Your task to perform on an android device: What's the weather going to be this weekend? Image 0: 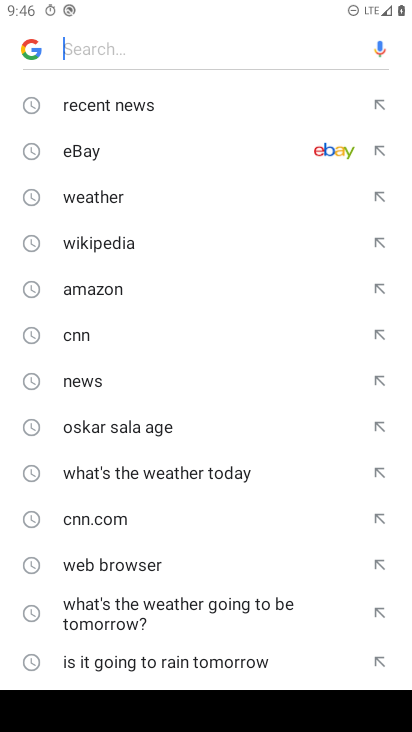
Step 0: press home button
Your task to perform on an android device: What's the weather going to be this weekend? Image 1: 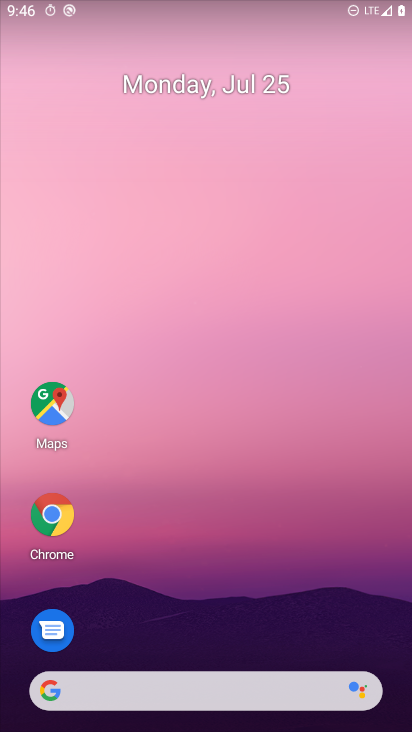
Step 1: click (81, 679)
Your task to perform on an android device: What's the weather going to be this weekend? Image 2: 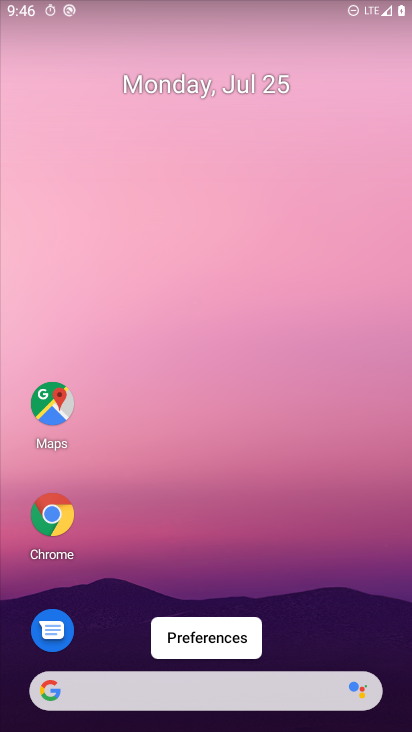
Step 2: click (136, 686)
Your task to perform on an android device: What's the weather going to be this weekend? Image 3: 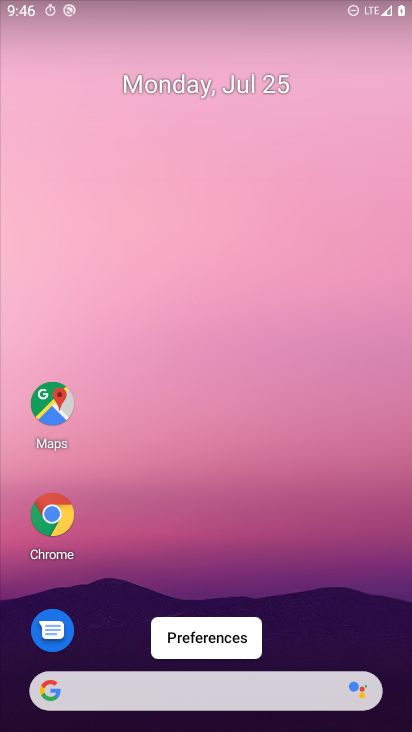
Step 3: click (142, 676)
Your task to perform on an android device: What's the weather going to be this weekend? Image 4: 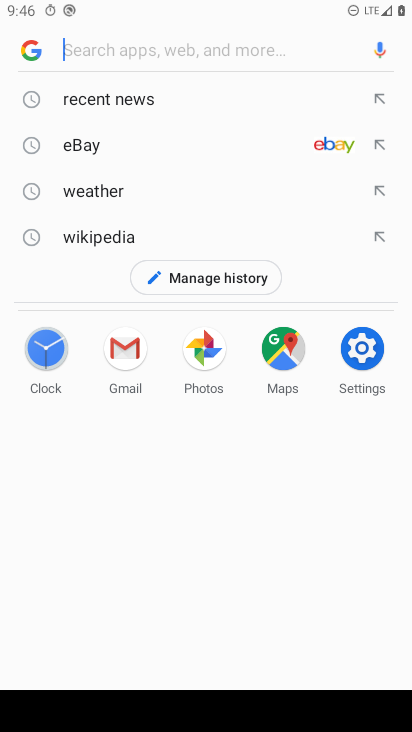
Step 4: type "What's the weather going to be this weekend?"
Your task to perform on an android device: What's the weather going to be this weekend? Image 5: 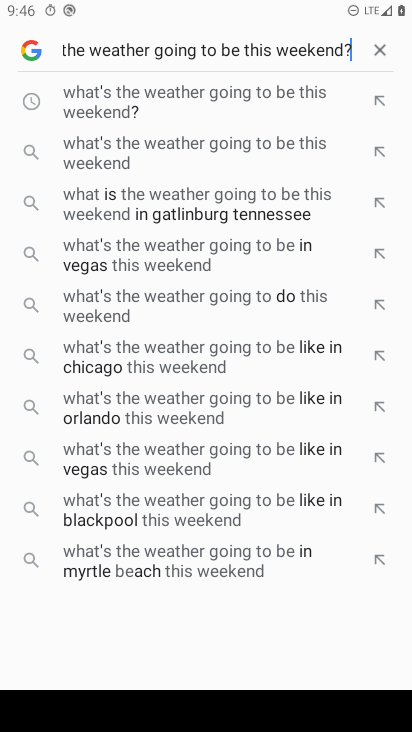
Step 5: type ""
Your task to perform on an android device: What's the weather going to be this weekend? Image 6: 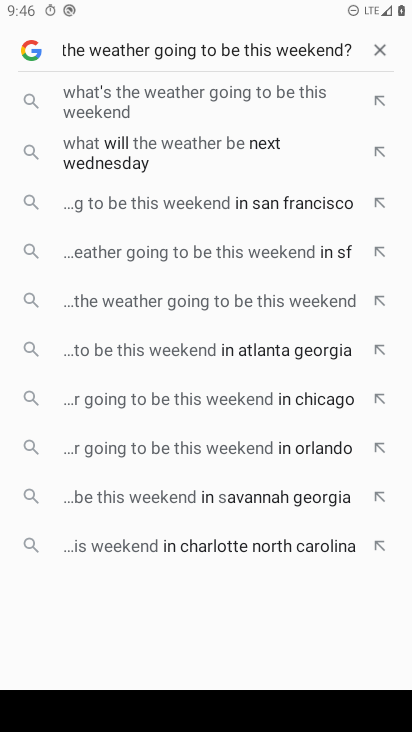
Step 6: click (125, 93)
Your task to perform on an android device: What's the weather going to be this weekend? Image 7: 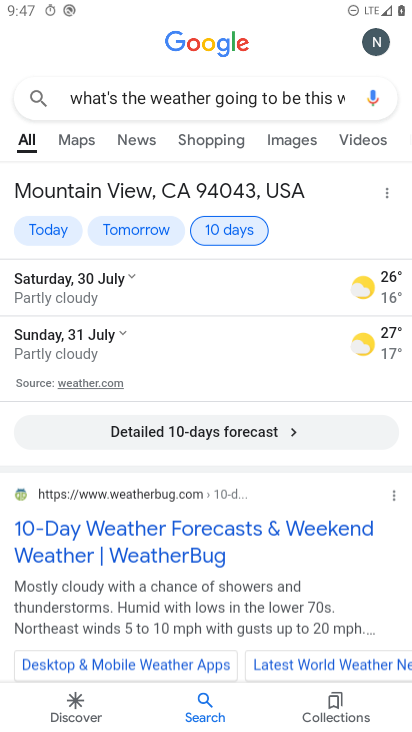
Step 7: task complete